Your task to perform on an android device: Open location settings Image 0: 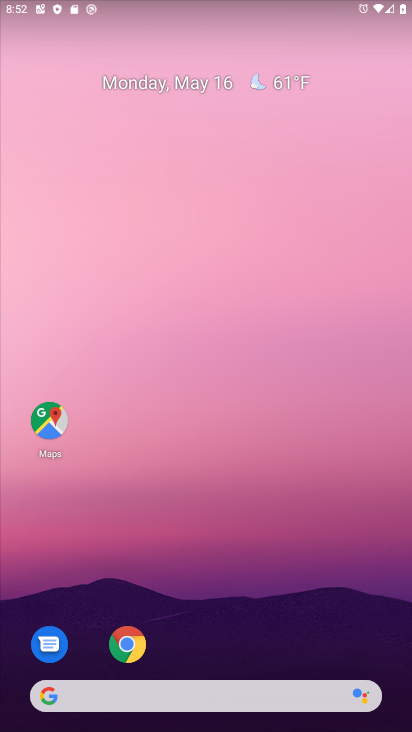
Step 0: drag from (217, 626) to (263, 109)
Your task to perform on an android device: Open location settings Image 1: 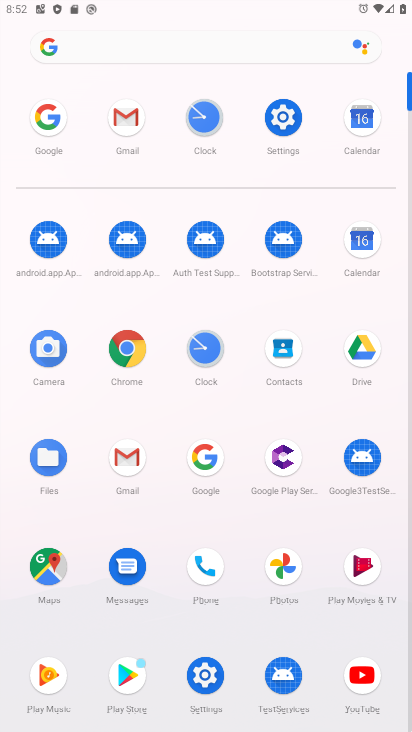
Step 1: click (291, 124)
Your task to perform on an android device: Open location settings Image 2: 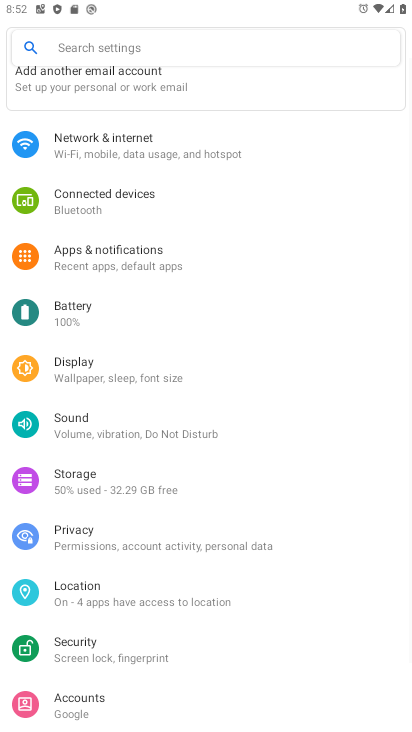
Step 2: click (86, 587)
Your task to perform on an android device: Open location settings Image 3: 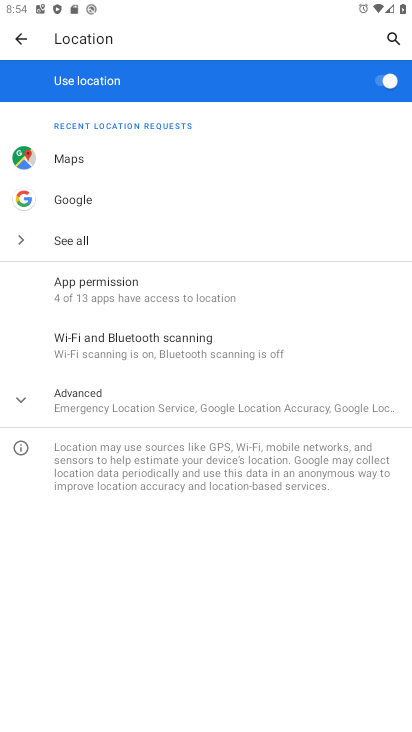
Step 3: task complete